Your task to perform on an android device: toggle notification dots Image 0: 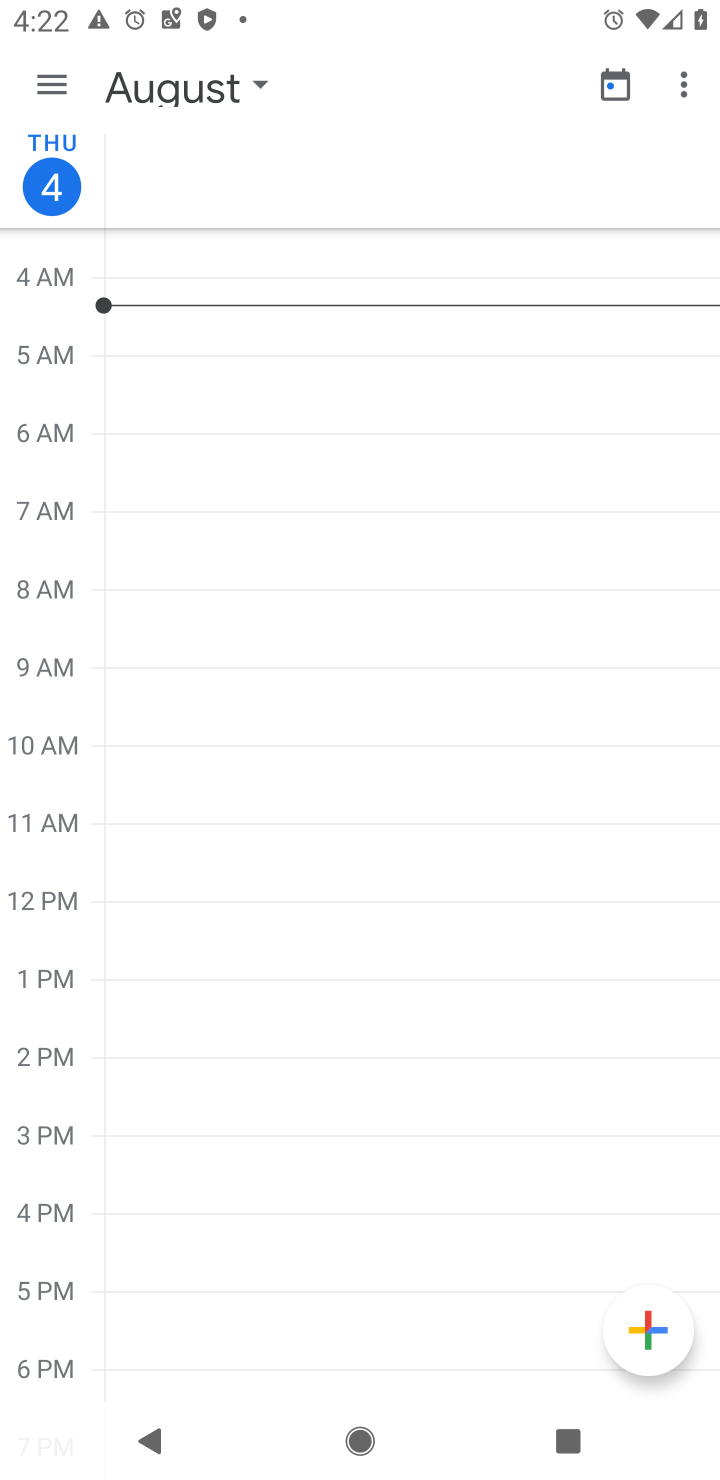
Step 0: press home button
Your task to perform on an android device: toggle notification dots Image 1: 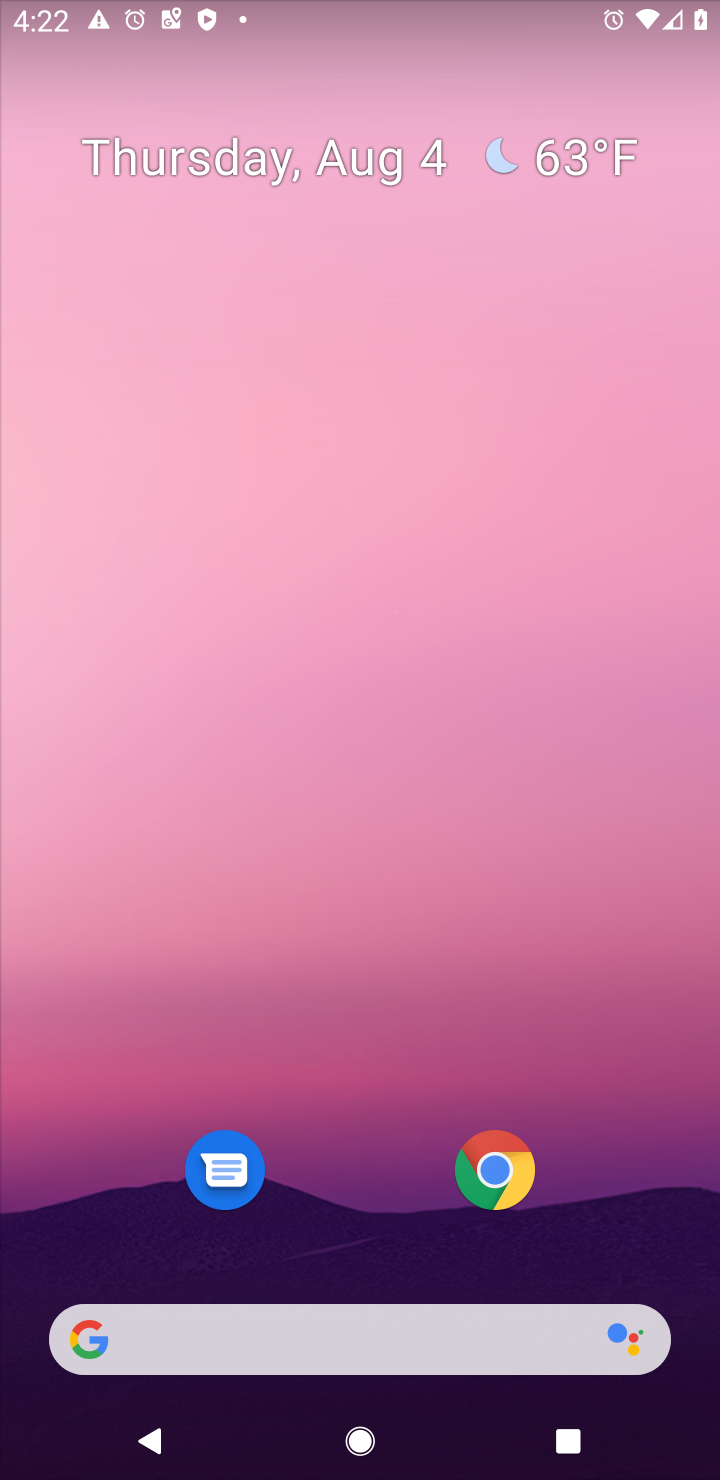
Step 1: drag from (658, 1223) to (539, 399)
Your task to perform on an android device: toggle notification dots Image 2: 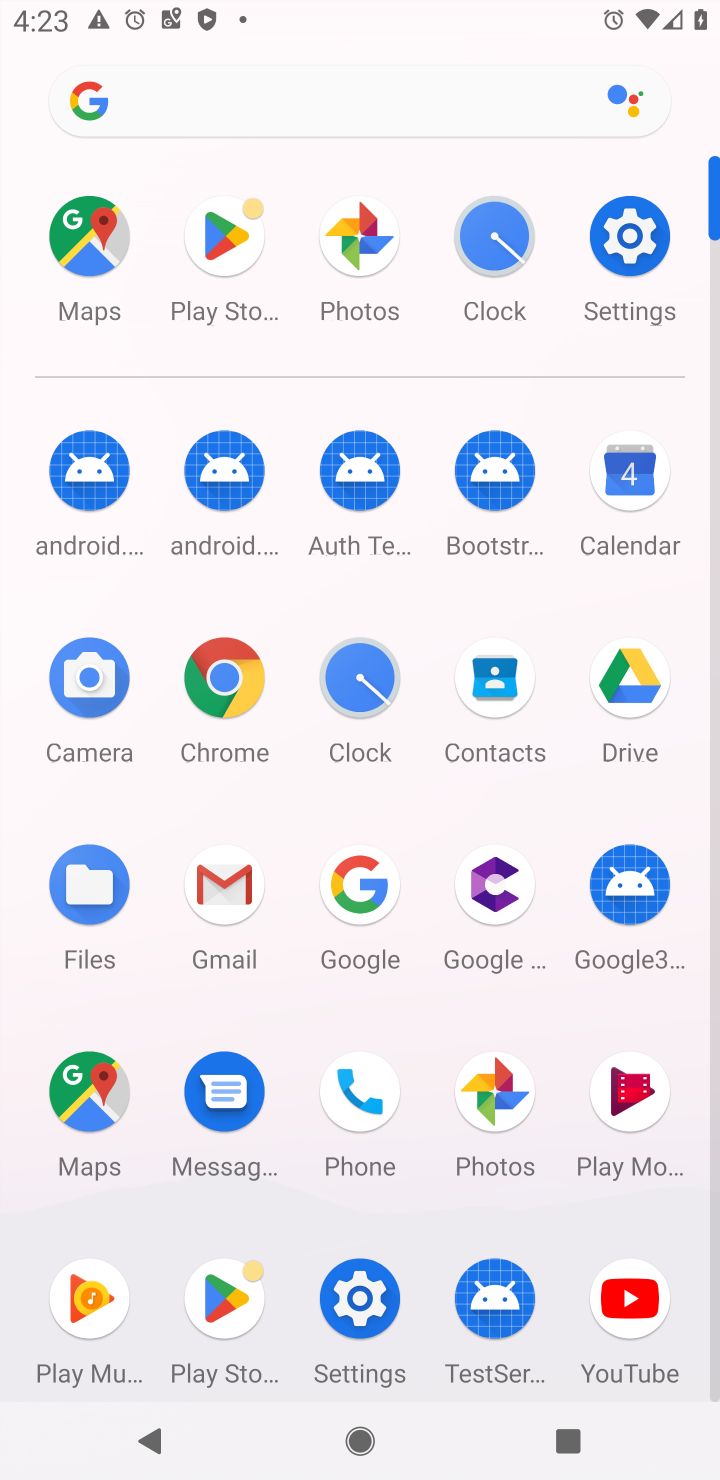
Step 2: click (356, 1294)
Your task to perform on an android device: toggle notification dots Image 3: 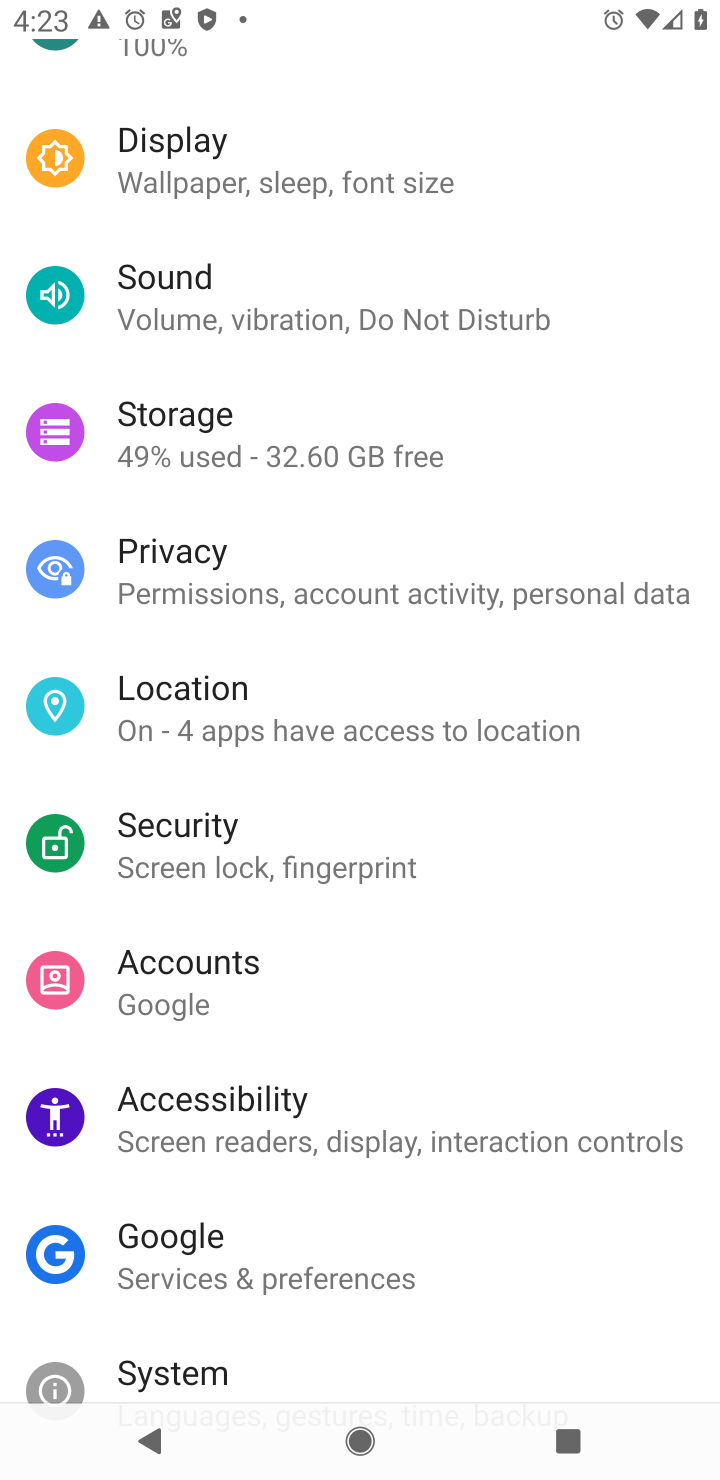
Step 3: drag from (605, 317) to (646, 1085)
Your task to perform on an android device: toggle notification dots Image 4: 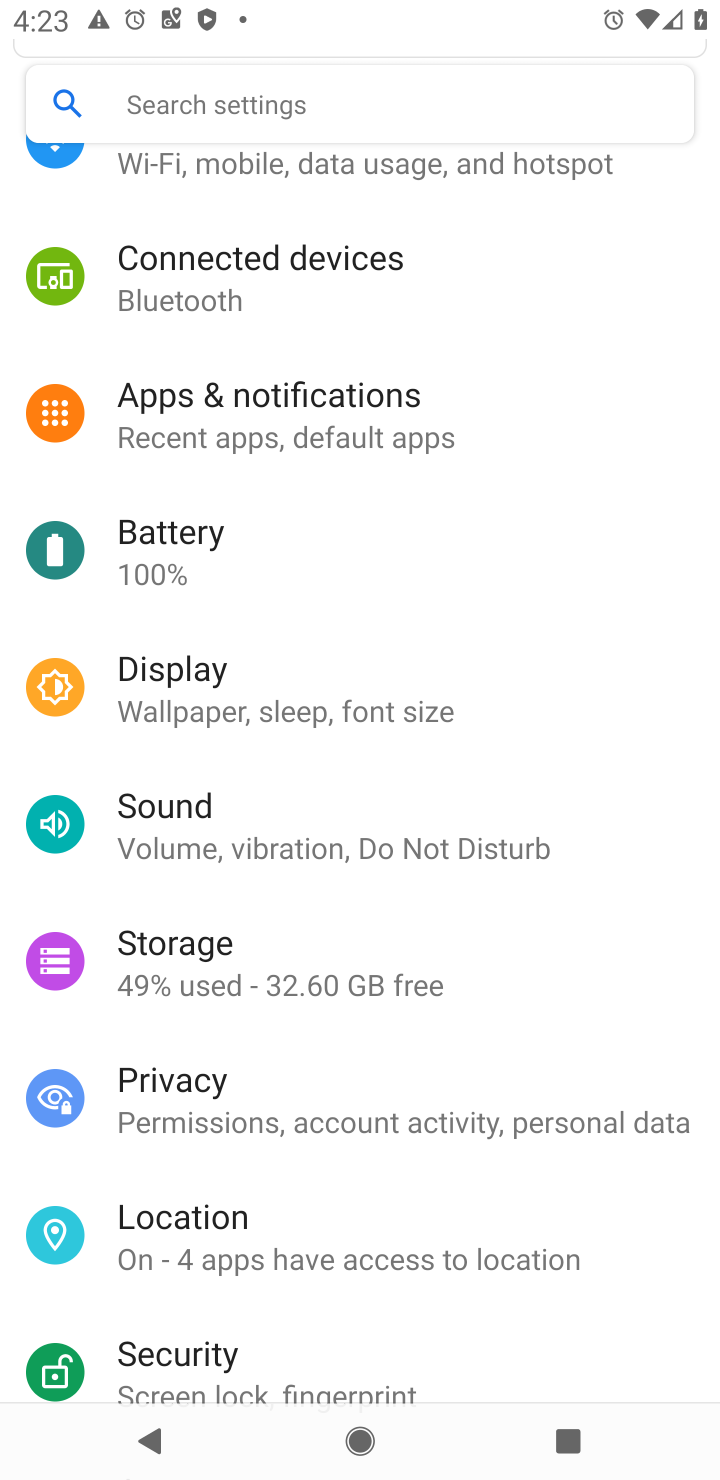
Step 4: click (209, 407)
Your task to perform on an android device: toggle notification dots Image 5: 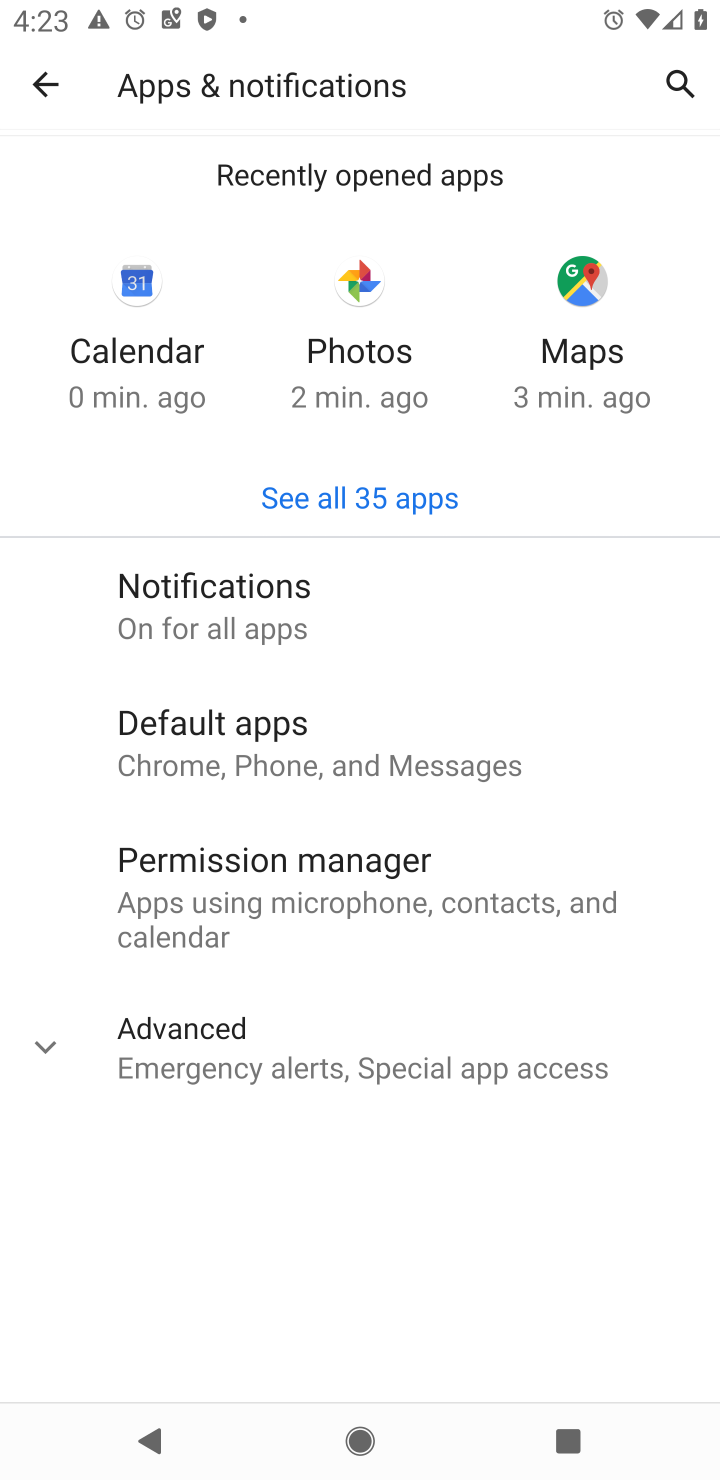
Step 5: click (214, 578)
Your task to perform on an android device: toggle notification dots Image 6: 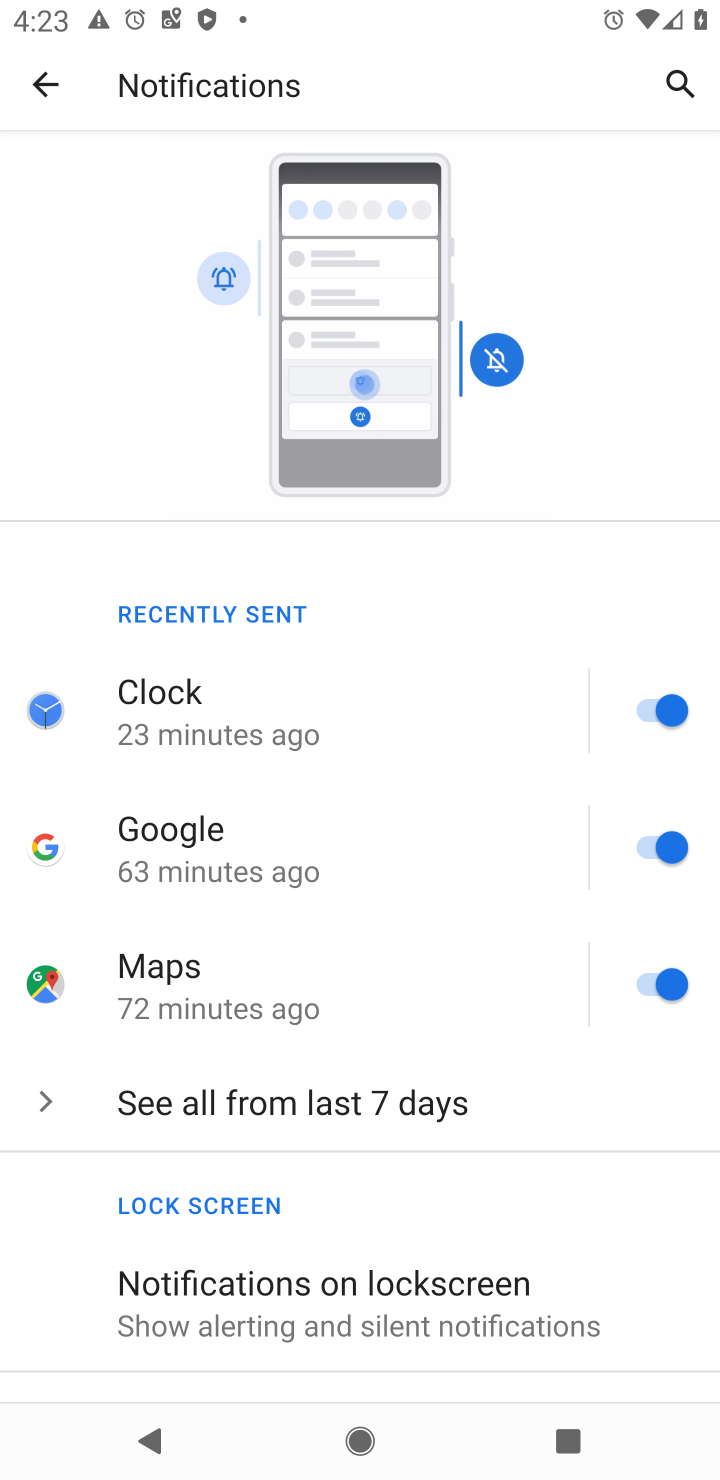
Step 6: drag from (486, 1209) to (514, 483)
Your task to perform on an android device: toggle notification dots Image 7: 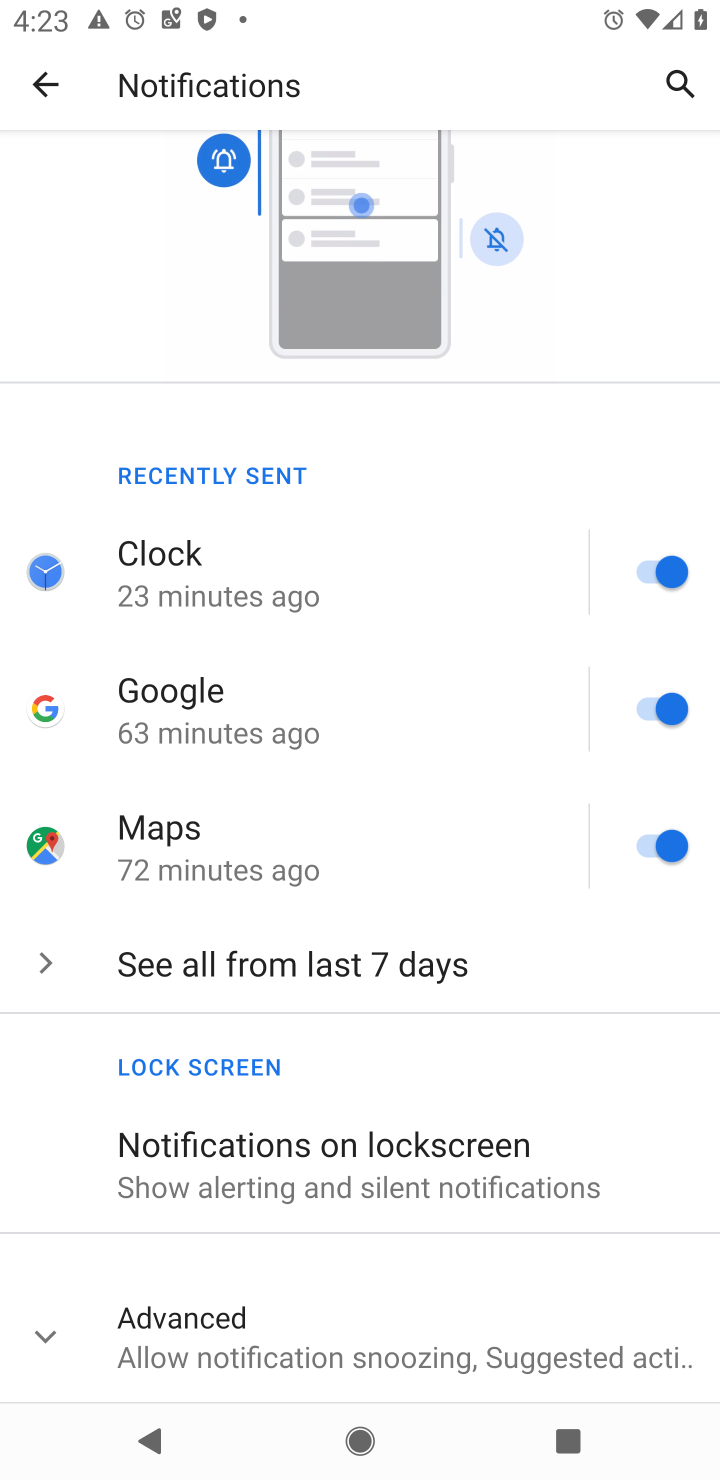
Step 7: click (119, 1308)
Your task to perform on an android device: toggle notification dots Image 8: 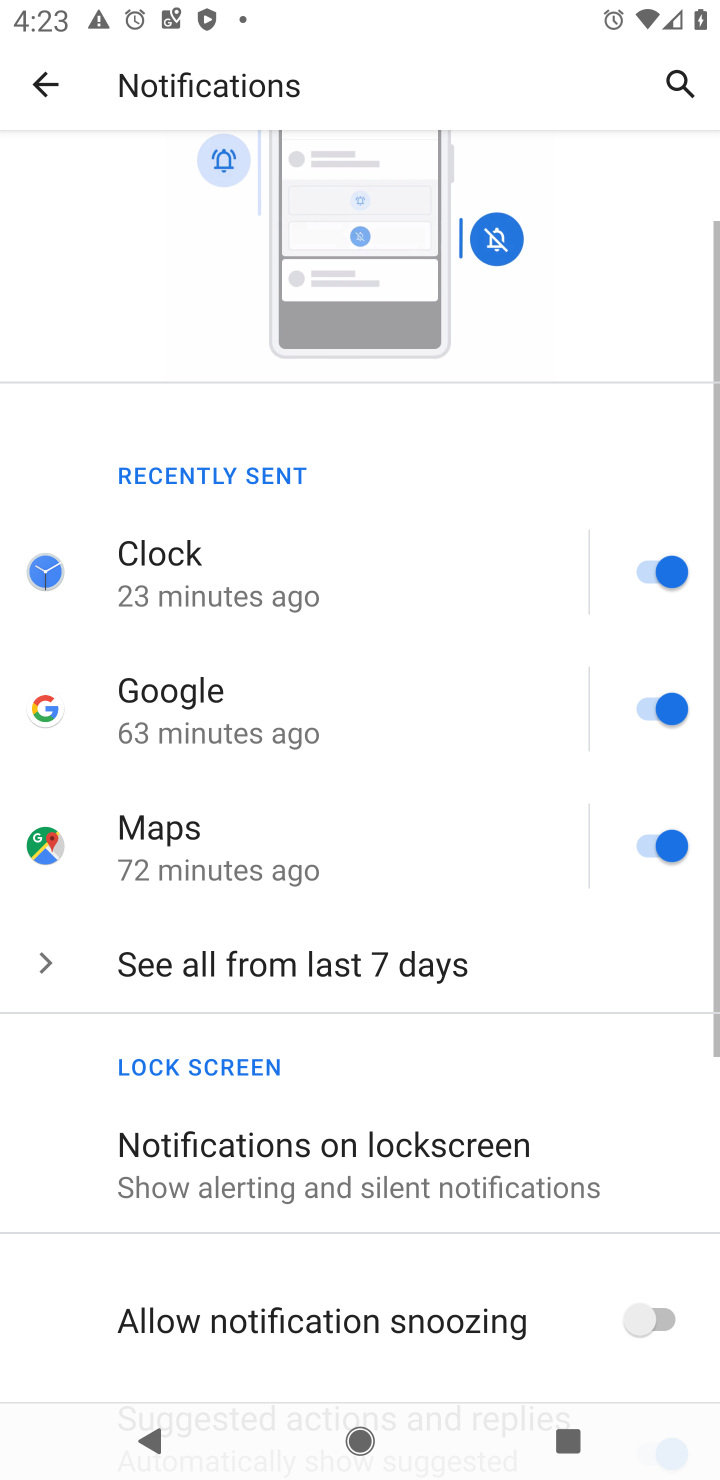
Step 8: drag from (448, 1225) to (504, 464)
Your task to perform on an android device: toggle notification dots Image 9: 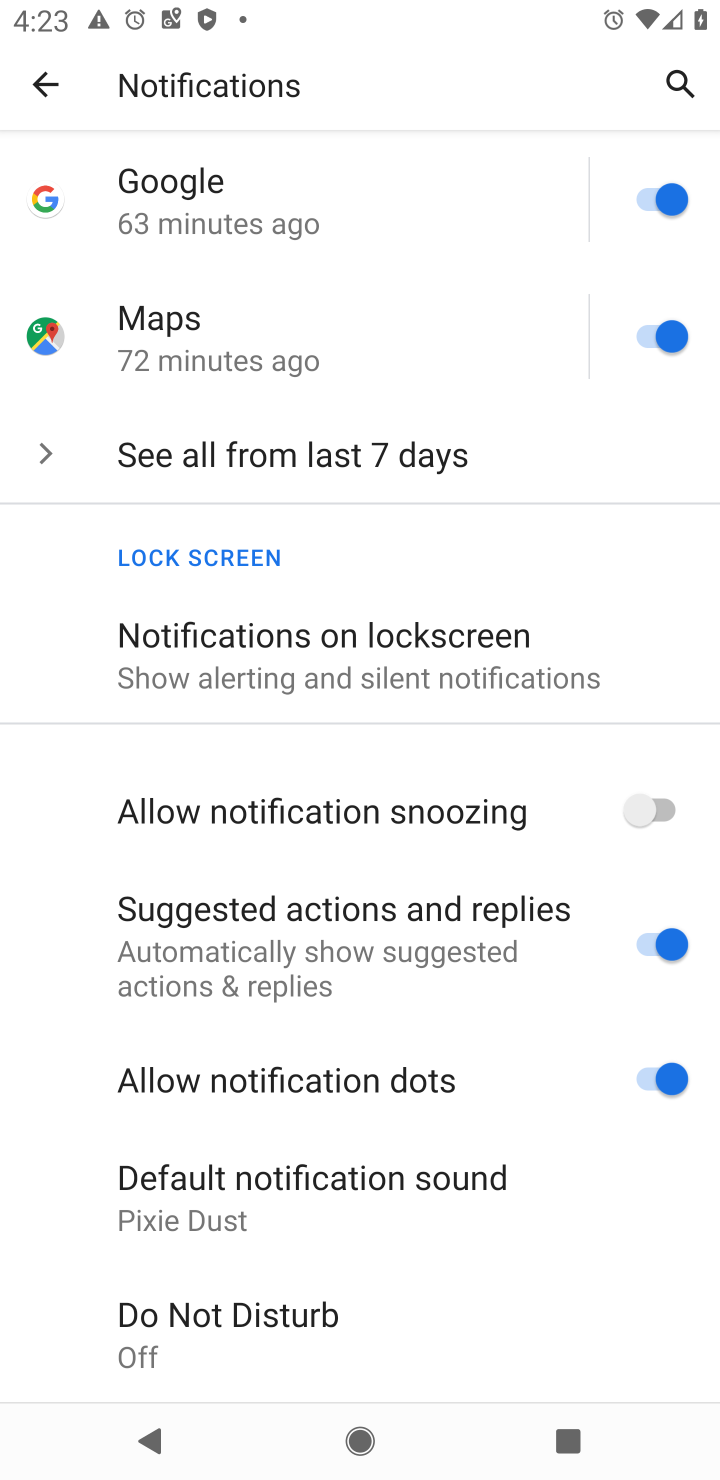
Step 9: click (660, 1080)
Your task to perform on an android device: toggle notification dots Image 10: 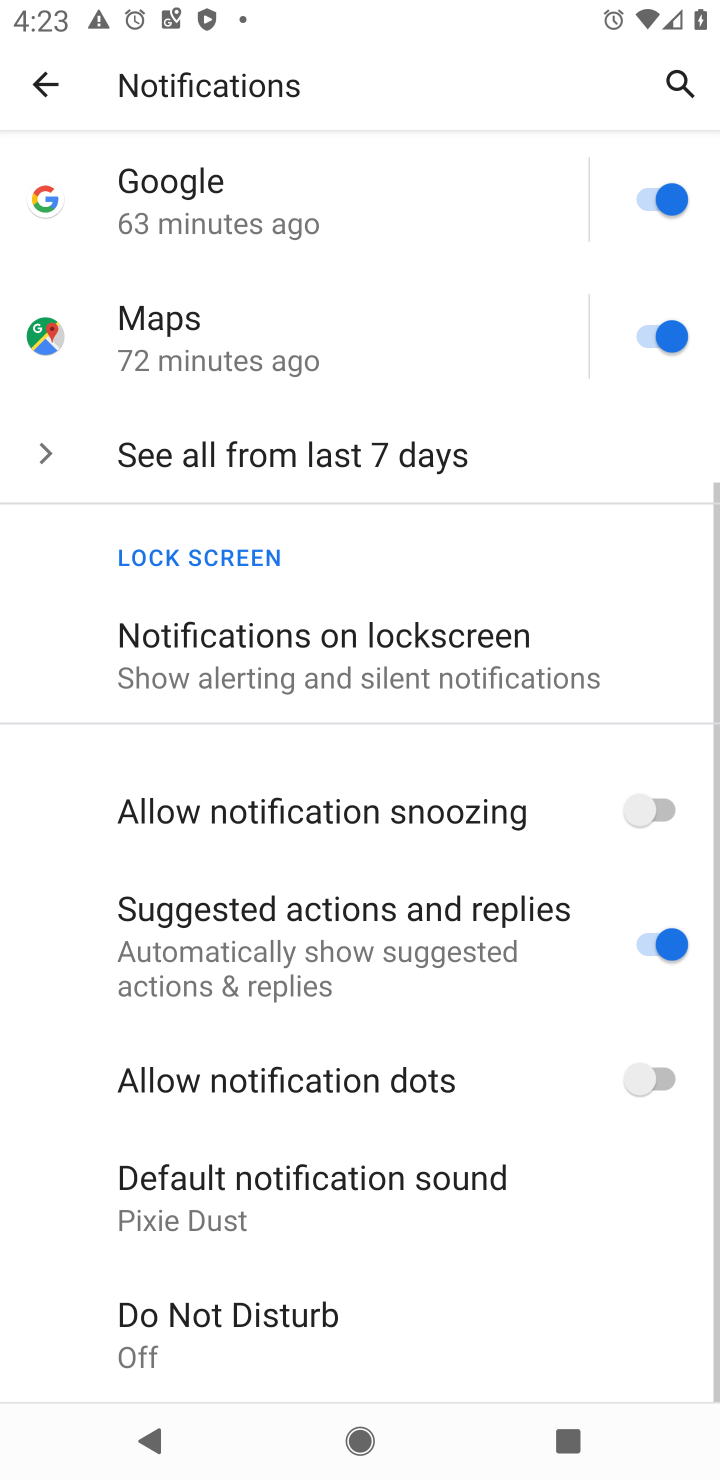
Step 10: task complete